Your task to perform on an android device: toggle notifications settings in the gmail app Image 0: 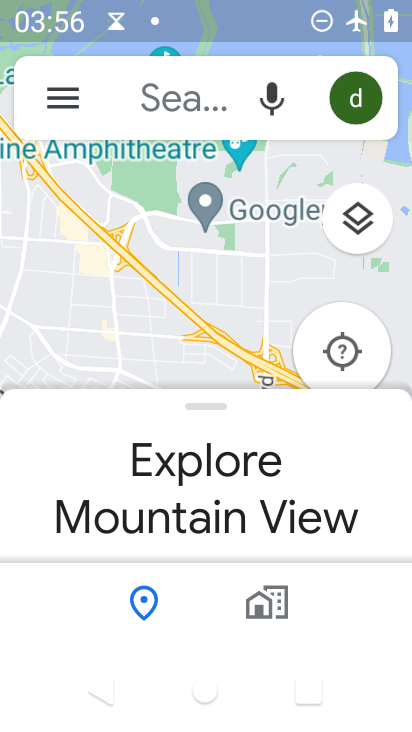
Step 0: press home button
Your task to perform on an android device: toggle notifications settings in the gmail app Image 1: 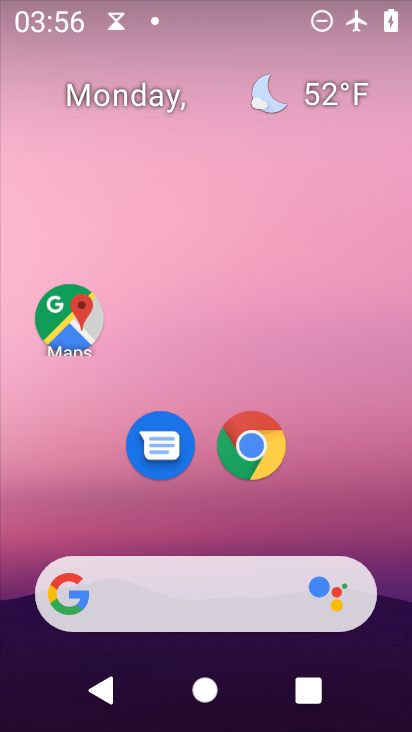
Step 1: drag from (200, 510) to (226, 10)
Your task to perform on an android device: toggle notifications settings in the gmail app Image 2: 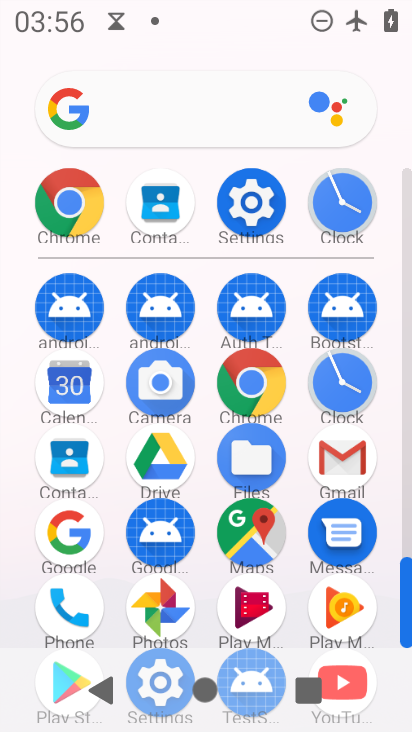
Step 2: click (352, 450)
Your task to perform on an android device: toggle notifications settings in the gmail app Image 3: 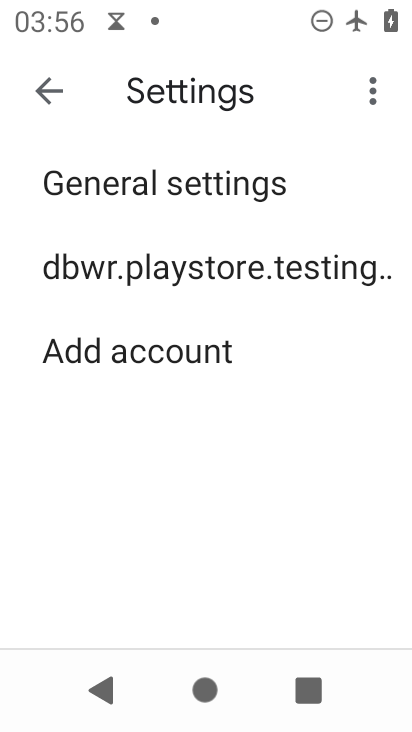
Step 3: click (137, 188)
Your task to perform on an android device: toggle notifications settings in the gmail app Image 4: 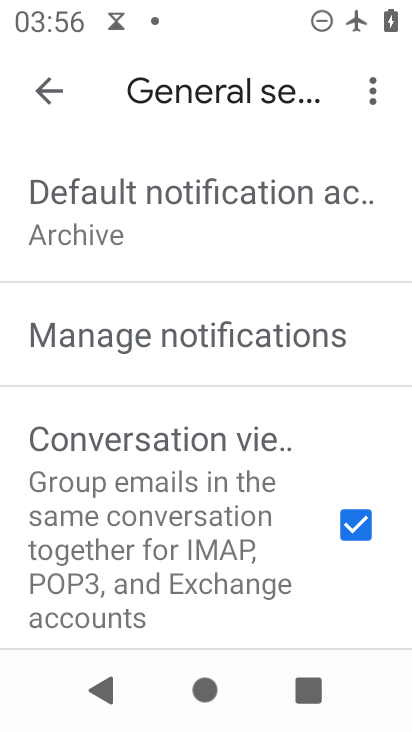
Step 4: click (171, 343)
Your task to perform on an android device: toggle notifications settings in the gmail app Image 5: 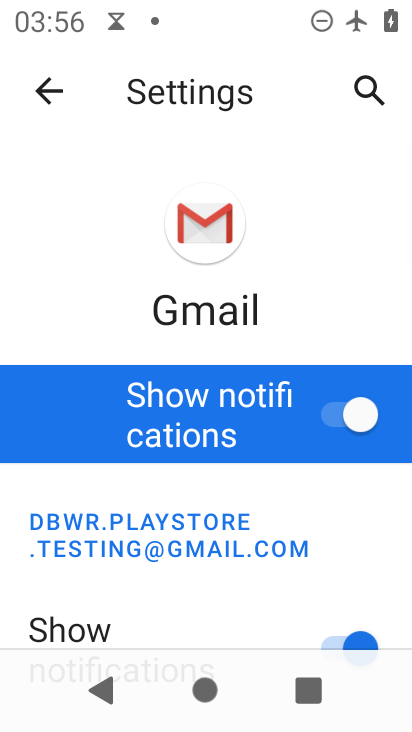
Step 5: drag from (177, 446) to (174, 291)
Your task to perform on an android device: toggle notifications settings in the gmail app Image 6: 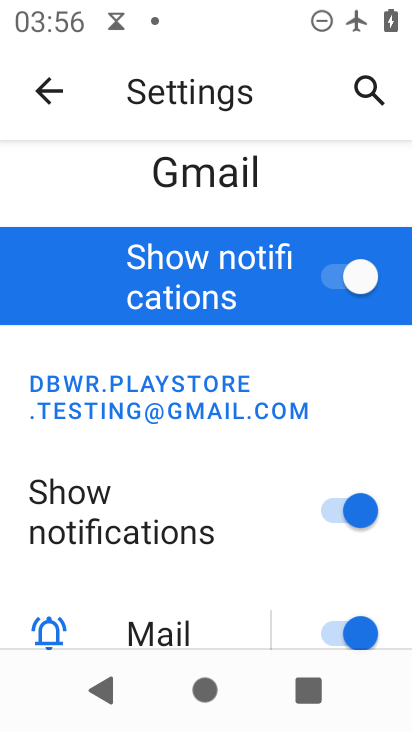
Step 6: click (321, 273)
Your task to perform on an android device: toggle notifications settings in the gmail app Image 7: 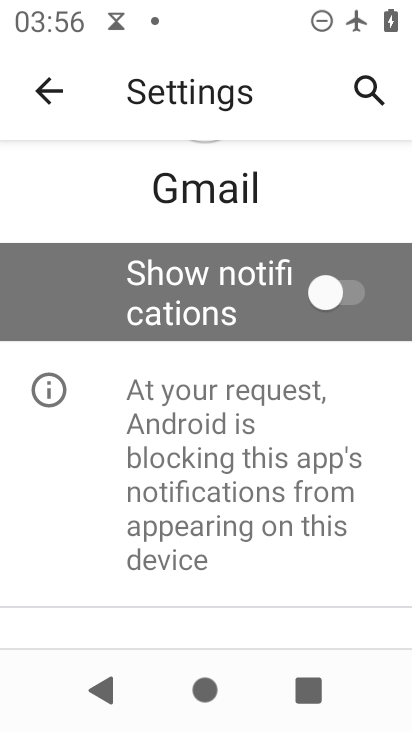
Step 7: task complete